Your task to perform on an android device: toggle translation in the chrome app Image 0: 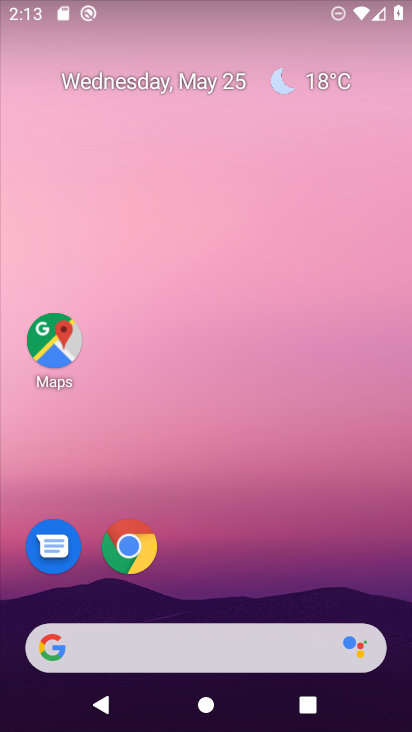
Step 0: click (135, 551)
Your task to perform on an android device: toggle translation in the chrome app Image 1: 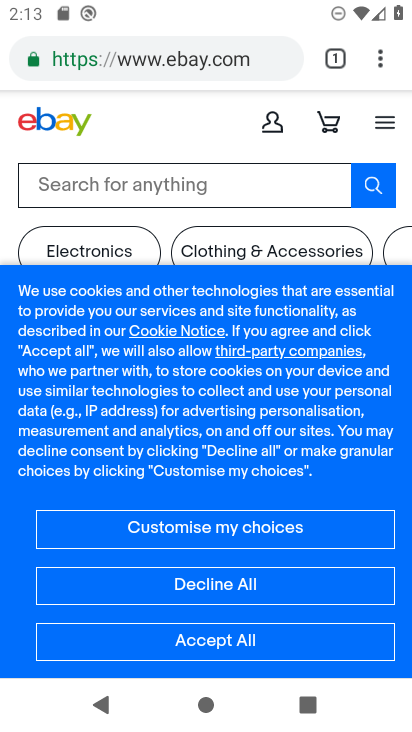
Step 1: click (380, 59)
Your task to perform on an android device: toggle translation in the chrome app Image 2: 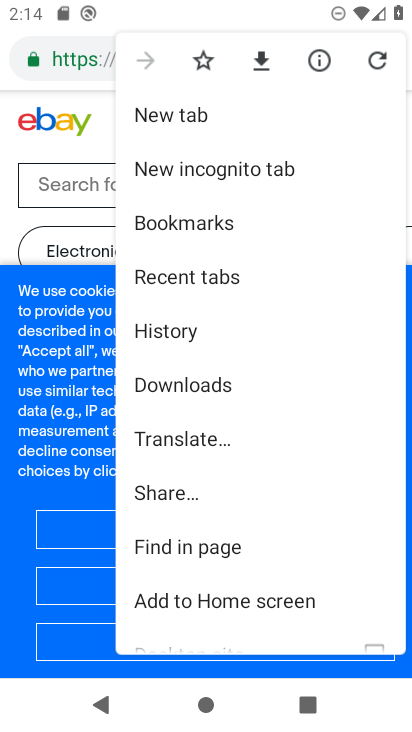
Step 2: drag from (195, 551) to (202, 329)
Your task to perform on an android device: toggle translation in the chrome app Image 3: 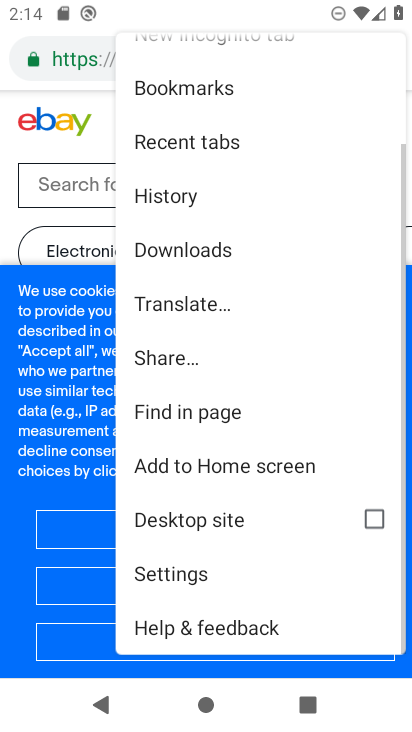
Step 3: click (196, 584)
Your task to perform on an android device: toggle translation in the chrome app Image 4: 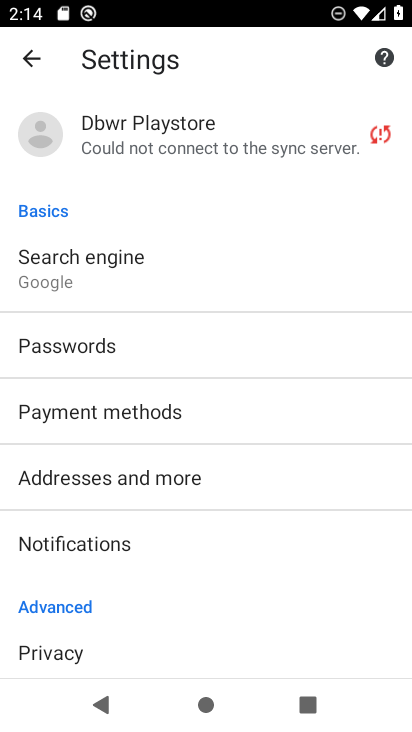
Step 4: drag from (138, 523) to (187, 207)
Your task to perform on an android device: toggle translation in the chrome app Image 5: 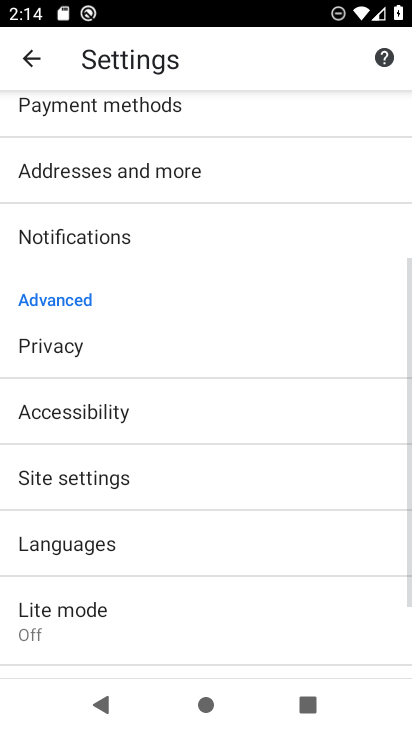
Step 5: click (85, 552)
Your task to perform on an android device: toggle translation in the chrome app Image 6: 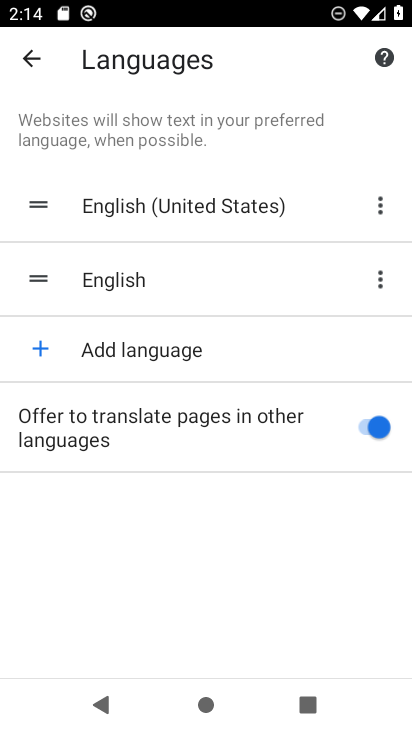
Step 6: click (281, 422)
Your task to perform on an android device: toggle translation in the chrome app Image 7: 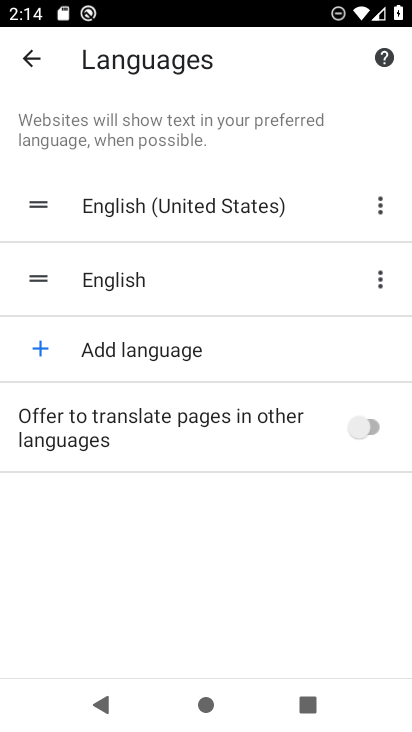
Step 7: task complete